Your task to perform on an android device: Go to settings Image 0: 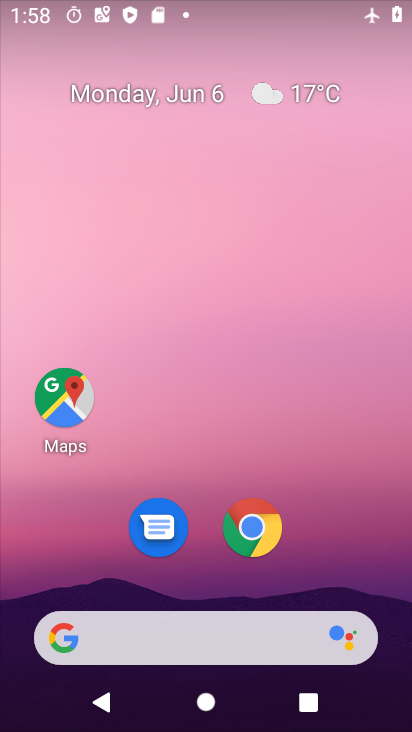
Step 0: drag from (231, 724) to (170, 86)
Your task to perform on an android device: Go to settings Image 1: 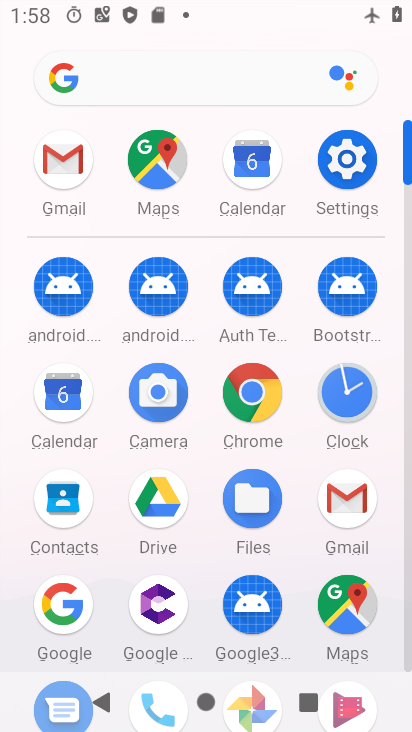
Step 1: click (344, 167)
Your task to perform on an android device: Go to settings Image 2: 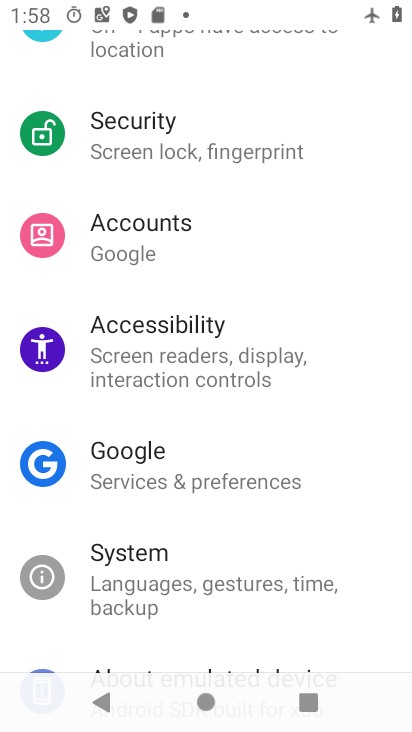
Step 2: task complete